Your task to perform on an android device: turn off picture-in-picture Image 0: 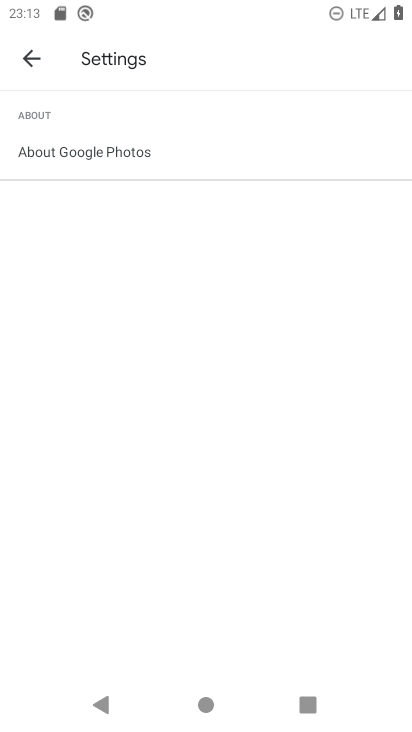
Step 0: press home button
Your task to perform on an android device: turn off picture-in-picture Image 1: 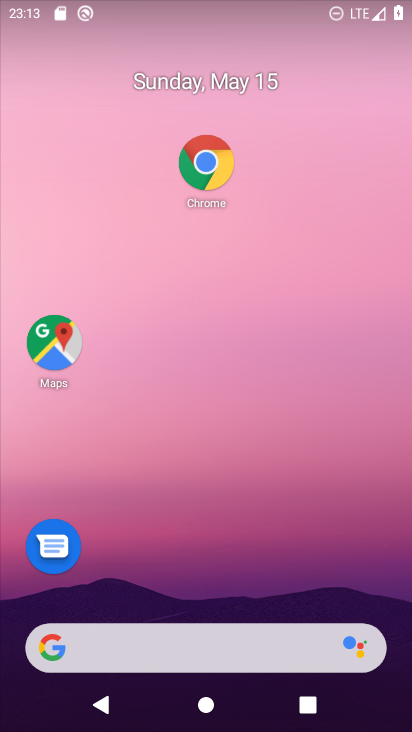
Step 1: click (205, 153)
Your task to perform on an android device: turn off picture-in-picture Image 2: 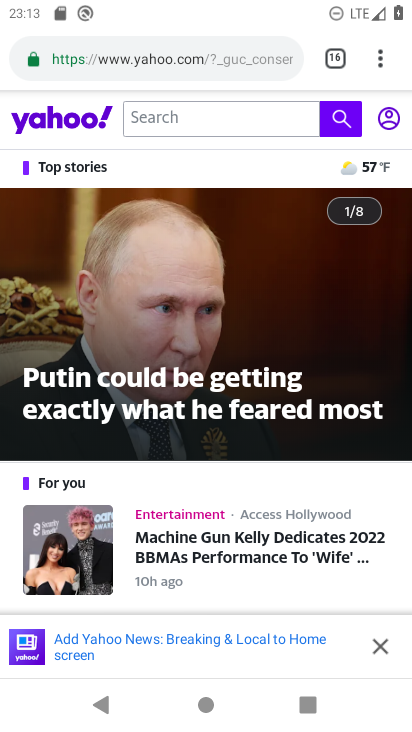
Step 2: press home button
Your task to perform on an android device: turn off picture-in-picture Image 3: 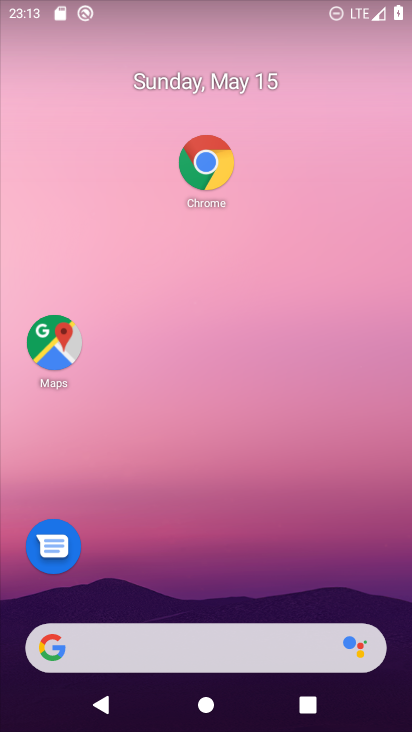
Step 3: drag from (206, 574) to (259, 184)
Your task to perform on an android device: turn off picture-in-picture Image 4: 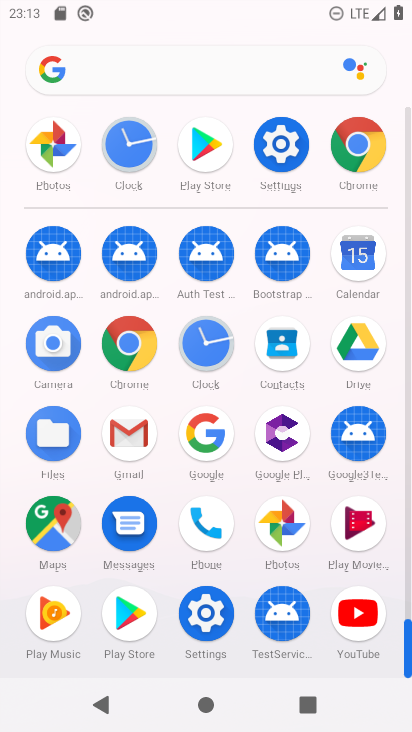
Step 4: click (302, 136)
Your task to perform on an android device: turn off picture-in-picture Image 5: 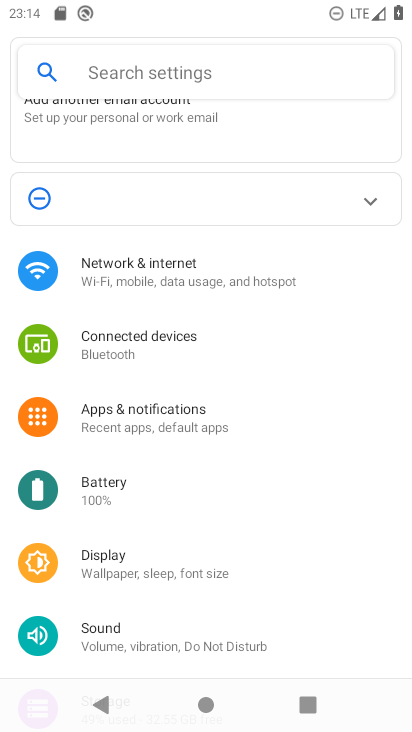
Step 5: click (131, 415)
Your task to perform on an android device: turn off picture-in-picture Image 6: 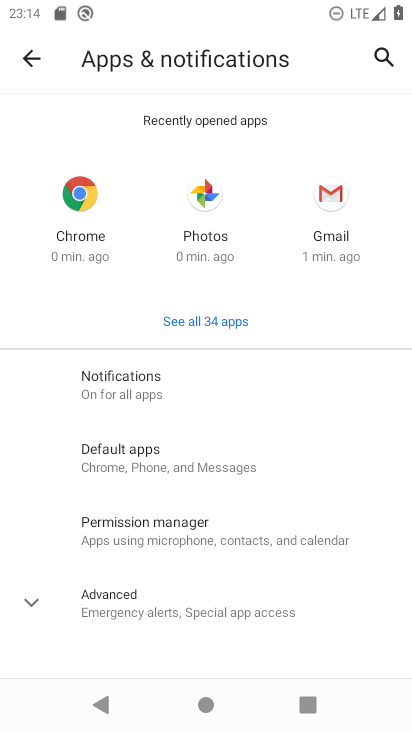
Step 6: click (166, 604)
Your task to perform on an android device: turn off picture-in-picture Image 7: 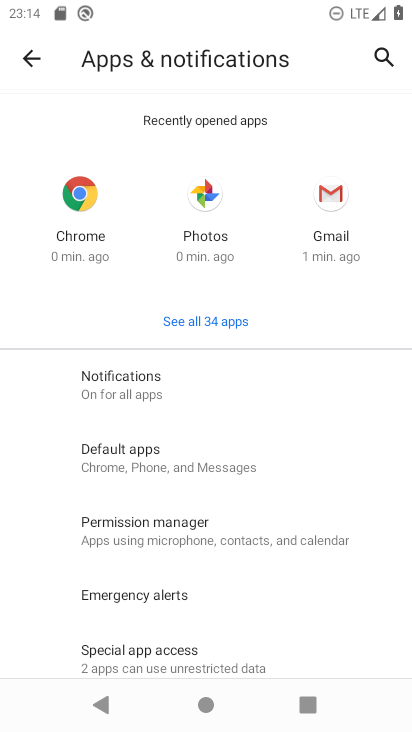
Step 7: drag from (183, 621) to (246, 401)
Your task to perform on an android device: turn off picture-in-picture Image 8: 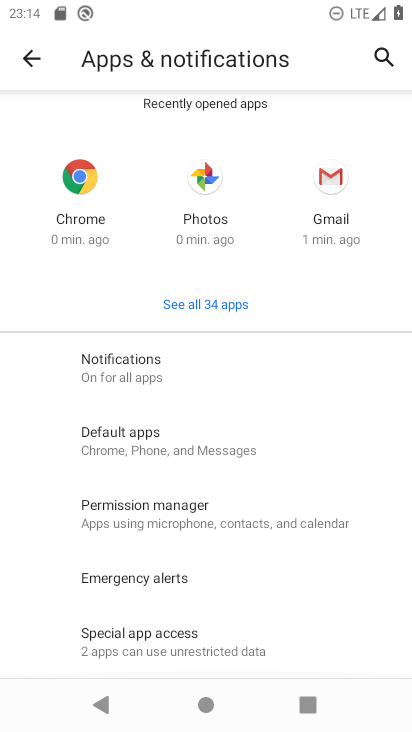
Step 8: click (141, 647)
Your task to perform on an android device: turn off picture-in-picture Image 9: 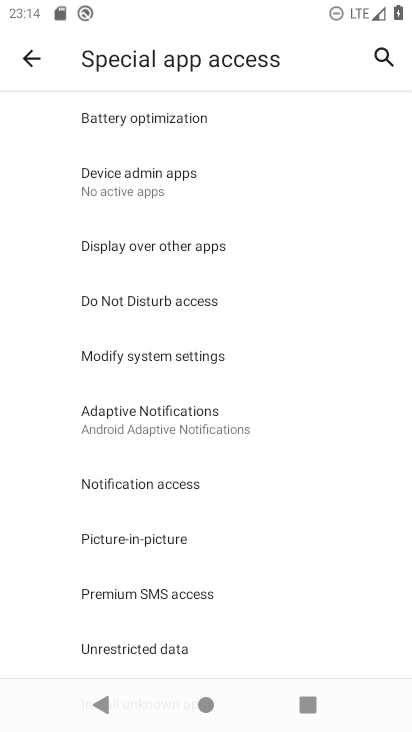
Step 9: click (125, 530)
Your task to perform on an android device: turn off picture-in-picture Image 10: 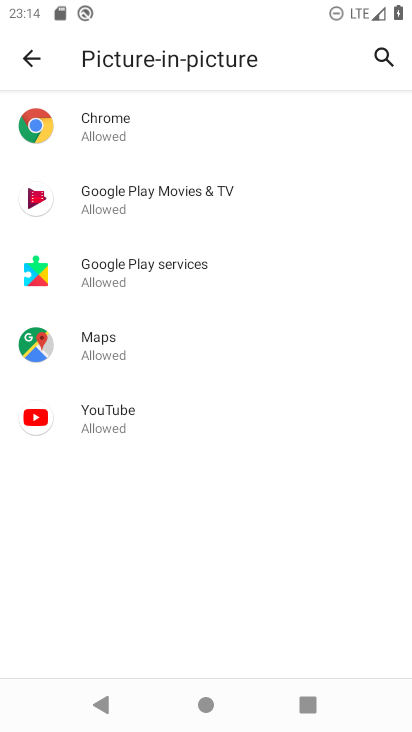
Step 10: click (114, 418)
Your task to perform on an android device: turn off picture-in-picture Image 11: 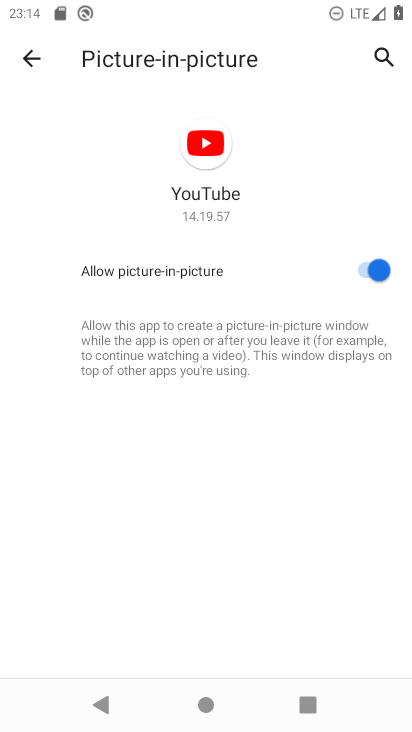
Step 11: click (359, 269)
Your task to perform on an android device: turn off picture-in-picture Image 12: 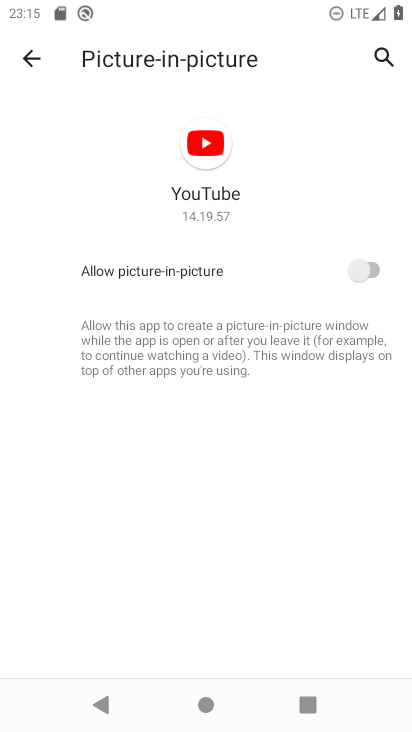
Step 12: task complete